Your task to perform on an android device: turn on translation in the chrome app Image 0: 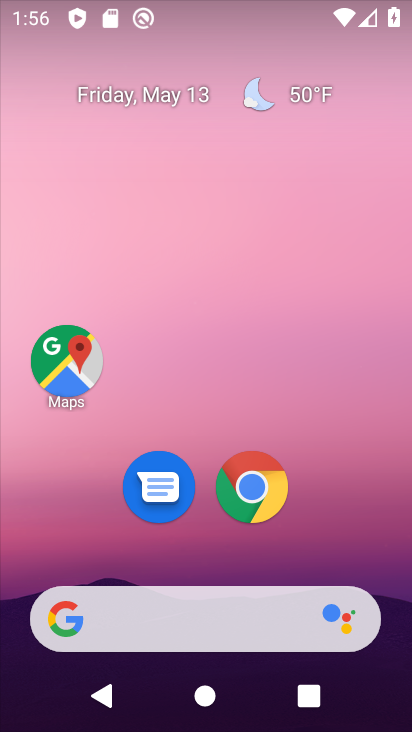
Step 0: click (268, 498)
Your task to perform on an android device: turn on translation in the chrome app Image 1: 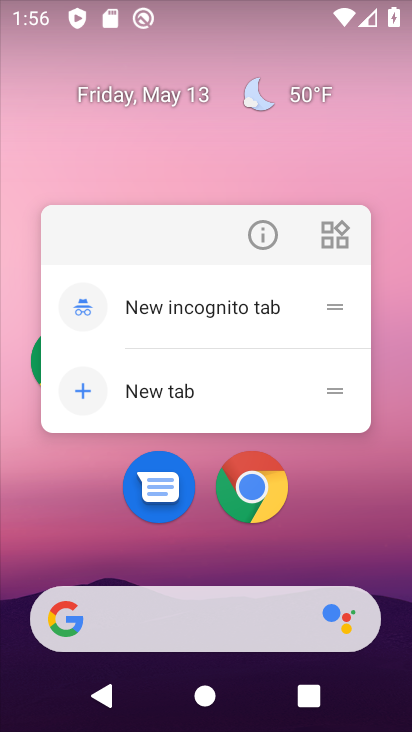
Step 1: click (264, 490)
Your task to perform on an android device: turn on translation in the chrome app Image 2: 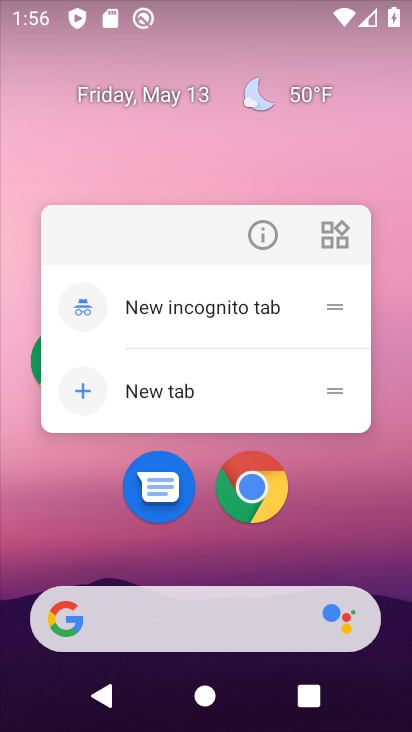
Step 2: click (264, 492)
Your task to perform on an android device: turn on translation in the chrome app Image 3: 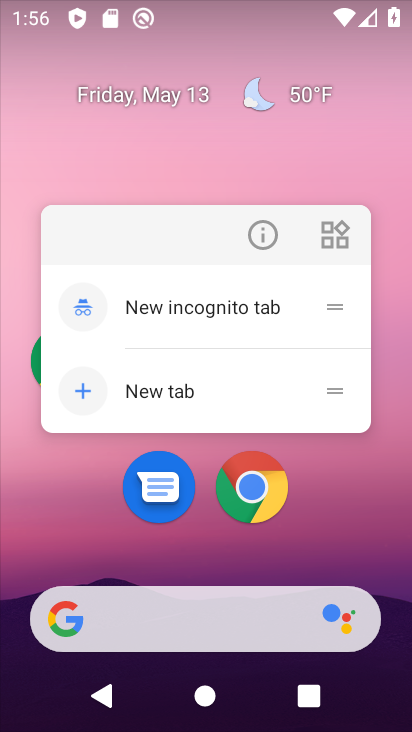
Step 3: click (262, 487)
Your task to perform on an android device: turn on translation in the chrome app Image 4: 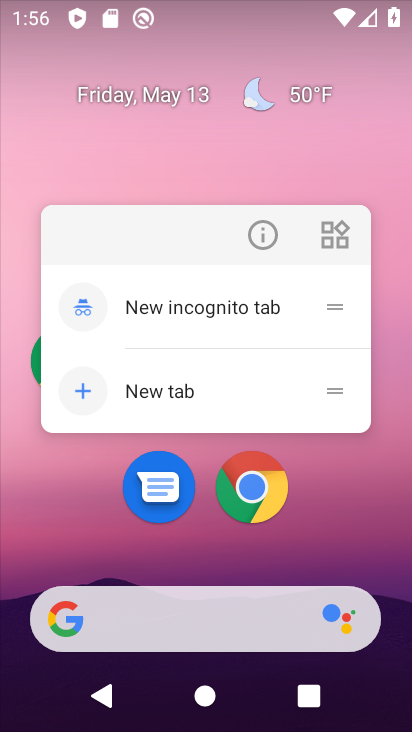
Step 4: click (255, 465)
Your task to perform on an android device: turn on translation in the chrome app Image 5: 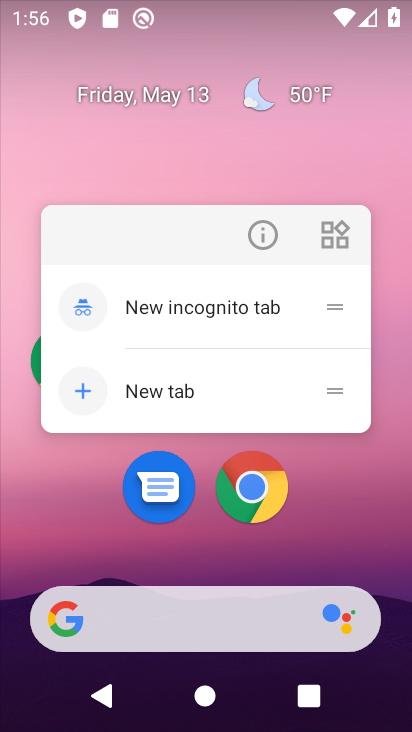
Step 5: click (246, 491)
Your task to perform on an android device: turn on translation in the chrome app Image 6: 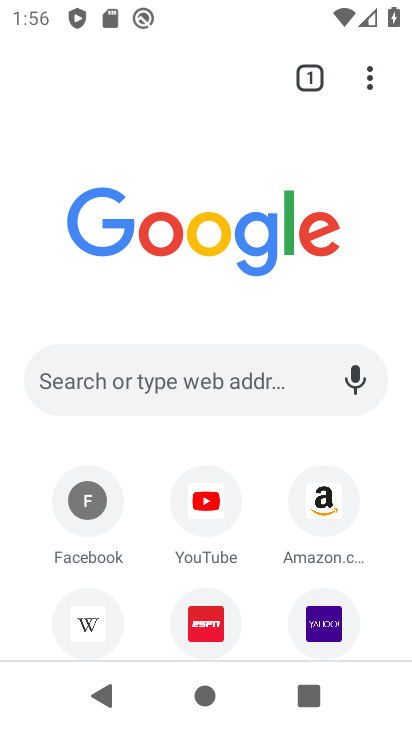
Step 6: drag from (372, 83) to (233, 560)
Your task to perform on an android device: turn on translation in the chrome app Image 7: 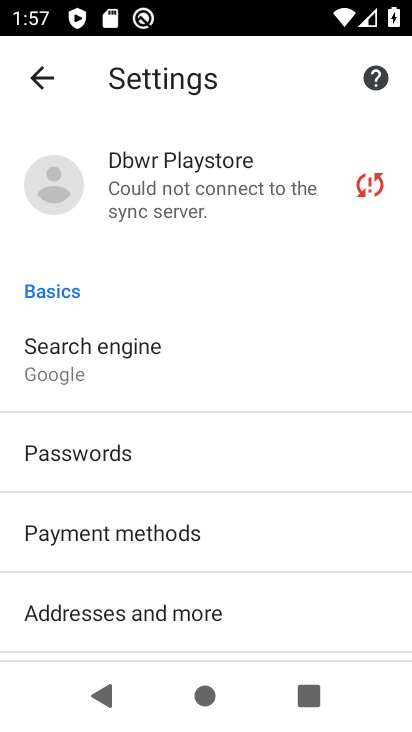
Step 7: drag from (115, 587) to (235, 237)
Your task to perform on an android device: turn on translation in the chrome app Image 8: 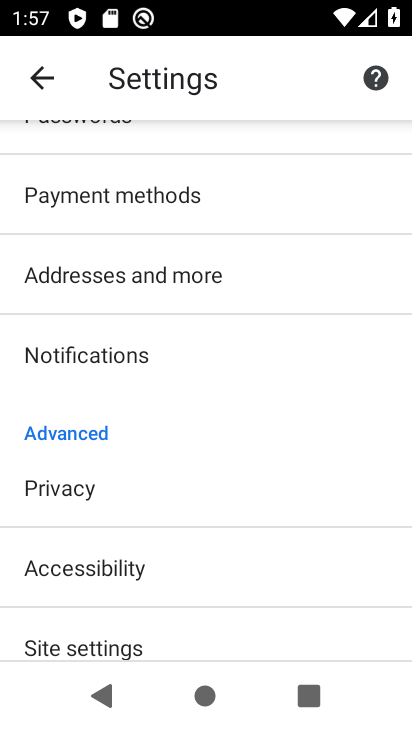
Step 8: drag from (202, 525) to (305, 239)
Your task to perform on an android device: turn on translation in the chrome app Image 9: 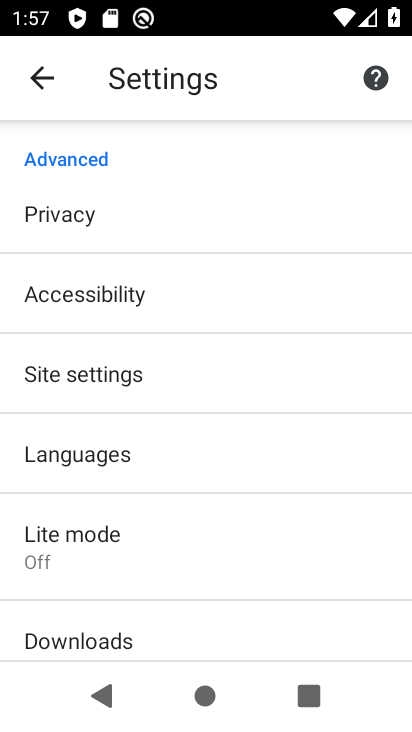
Step 9: click (173, 464)
Your task to perform on an android device: turn on translation in the chrome app Image 10: 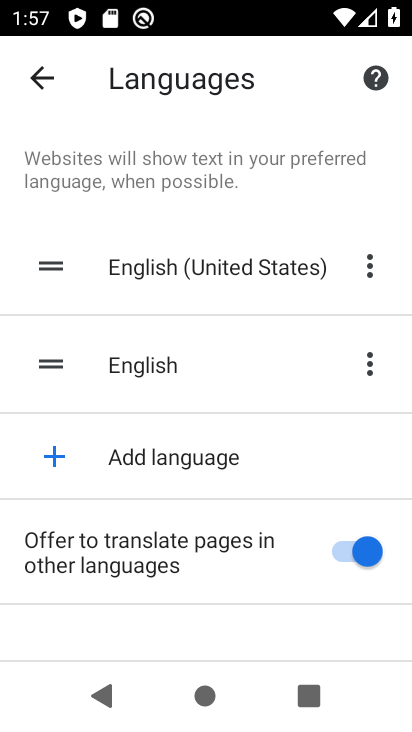
Step 10: task complete